Your task to perform on an android device: choose inbox layout in the gmail app Image 0: 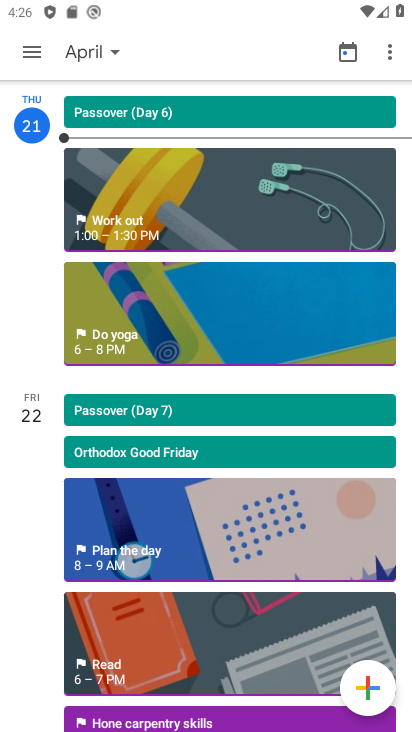
Step 0: press home button
Your task to perform on an android device: choose inbox layout in the gmail app Image 1: 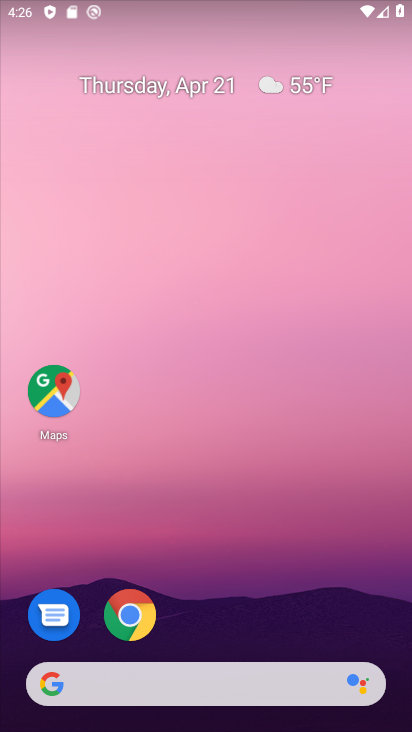
Step 1: click (212, 145)
Your task to perform on an android device: choose inbox layout in the gmail app Image 2: 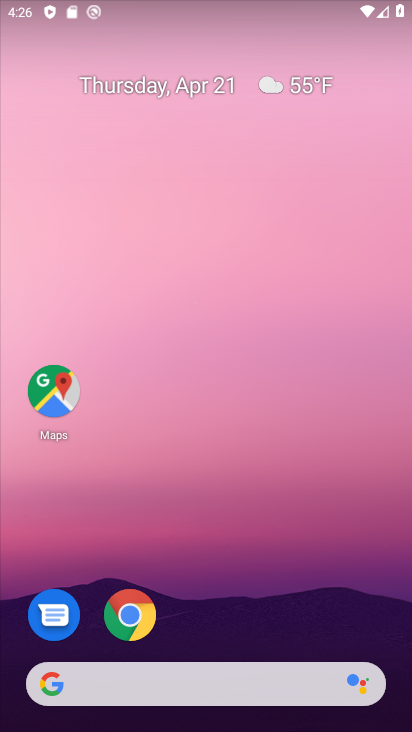
Step 2: drag from (217, 577) to (206, 189)
Your task to perform on an android device: choose inbox layout in the gmail app Image 3: 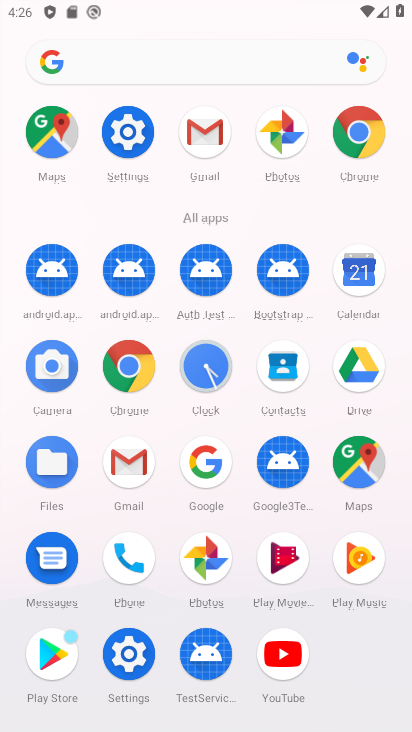
Step 3: click (199, 134)
Your task to perform on an android device: choose inbox layout in the gmail app Image 4: 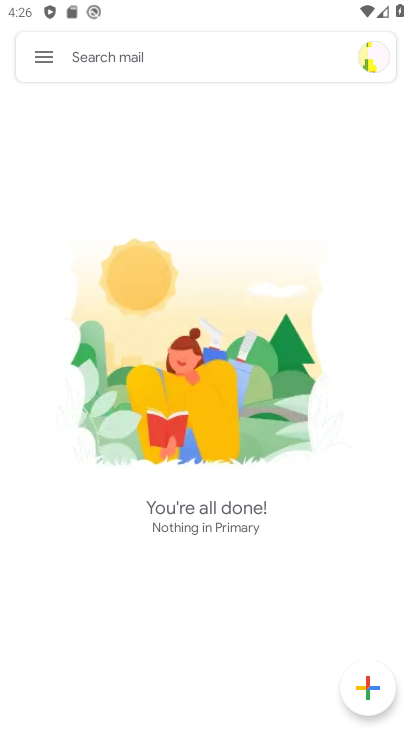
Step 4: click (46, 68)
Your task to perform on an android device: choose inbox layout in the gmail app Image 5: 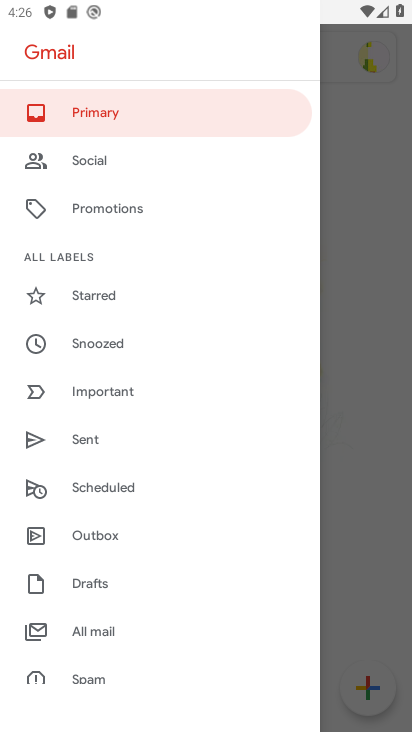
Step 5: drag from (138, 647) to (131, 307)
Your task to perform on an android device: choose inbox layout in the gmail app Image 6: 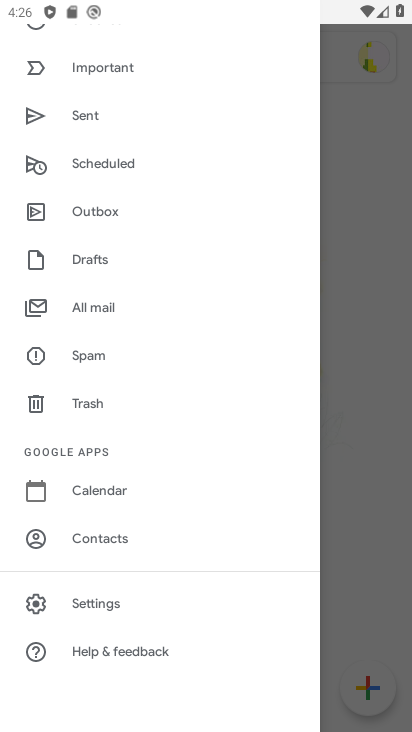
Step 6: click (90, 603)
Your task to perform on an android device: choose inbox layout in the gmail app Image 7: 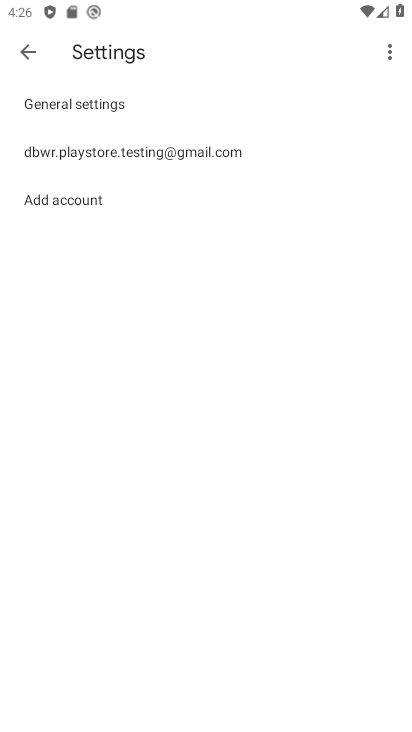
Step 7: click (127, 154)
Your task to perform on an android device: choose inbox layout in the gmail app Image 8: 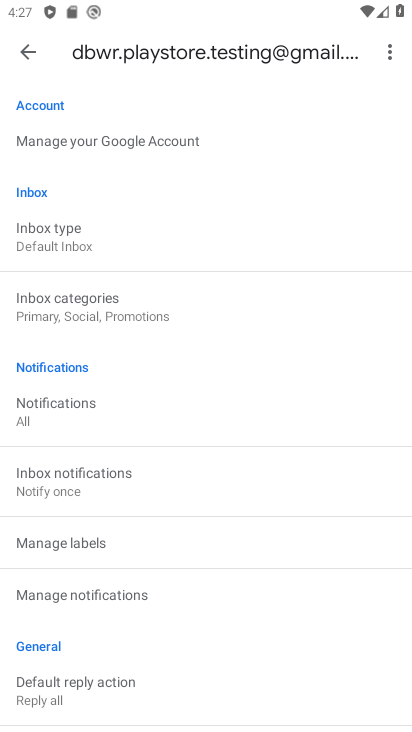
Step 8: click (147, 242)
Your task to perform on an android device: choose inbox layout in the gmail app Image 9: 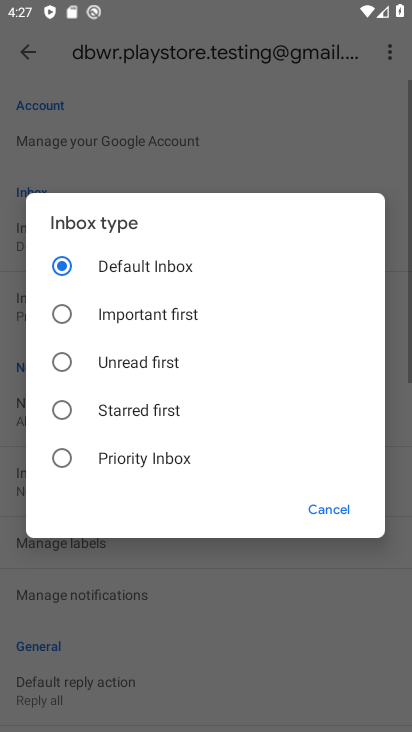
Step 9: click (141, 464)
Your task to perform on an android device: choose inbox layout in the gmail app Image 10: 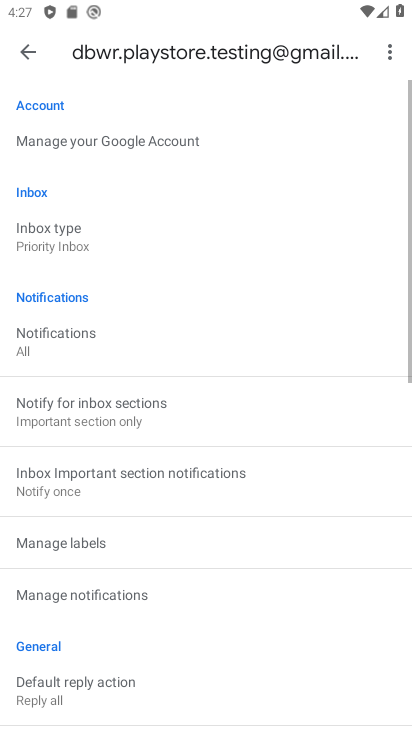
Step 10: task complete